Your task to perform on an android device: clear history in the chrome app Image 0: 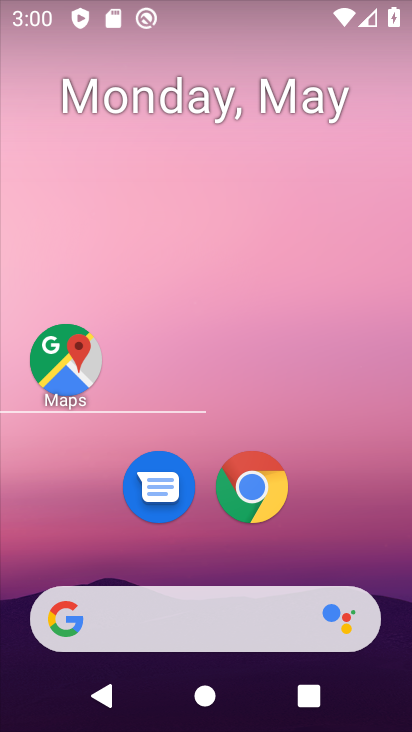
Step 0: click (201, 226)
Your task to perform on an android device: clear history in the chrome app Image 1: 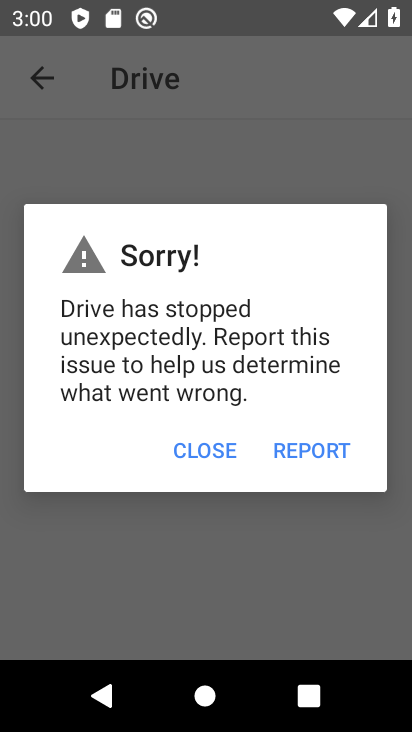
Step 1: click (224, 447)
Your task to perform on an android device: clear history in the chrome app Image 2: 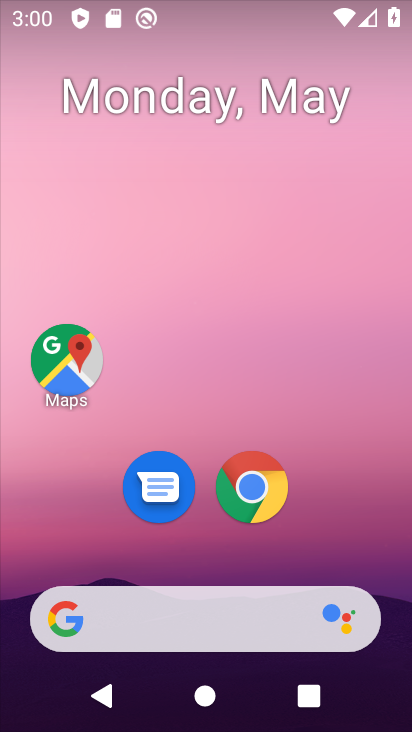
Step 2: drag from (229, 510) to (211, 166)
Your task to perform on an android device: clear history in the chrome app Image 3: 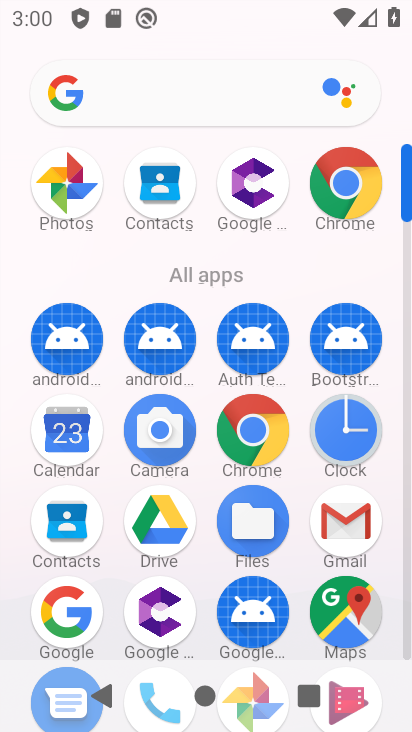
Step 3: click (337, 201)
Your task to perform on an android device: clear history in the chrome app Image 4: 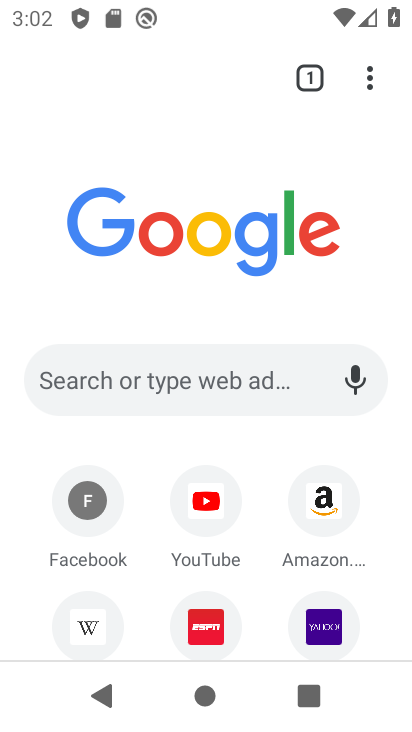
Step 4: click (372, 76)
Your task to perform on an android device: clear history in the chrome app Image 5: 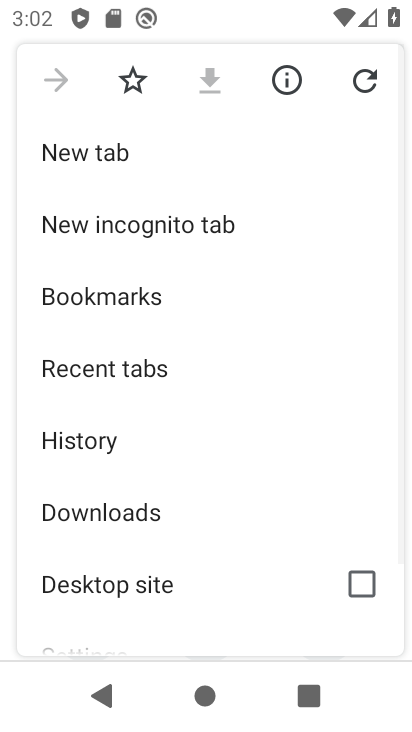
Step 5: drag from (169, 576) to (148, 219)
Your task to perform on an android device: clear history in the chrome app Image 6: 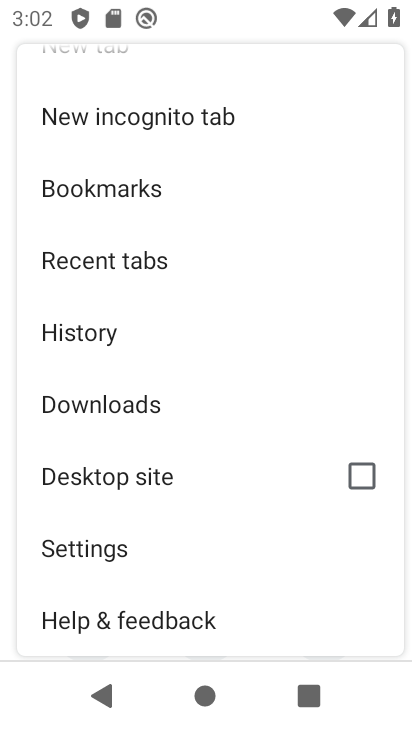
Step 6: click (116, 333)
Your task to perform on an android device: clear history in the chrome app Image 7: 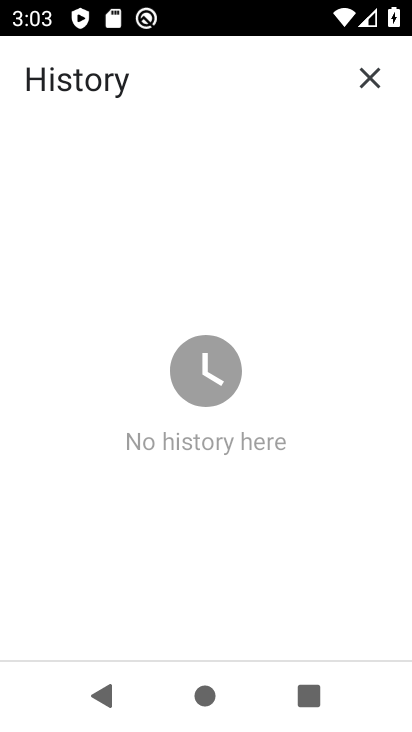
Step 7: task complete